Your task to perform on an android device: Go to Google Image 0: 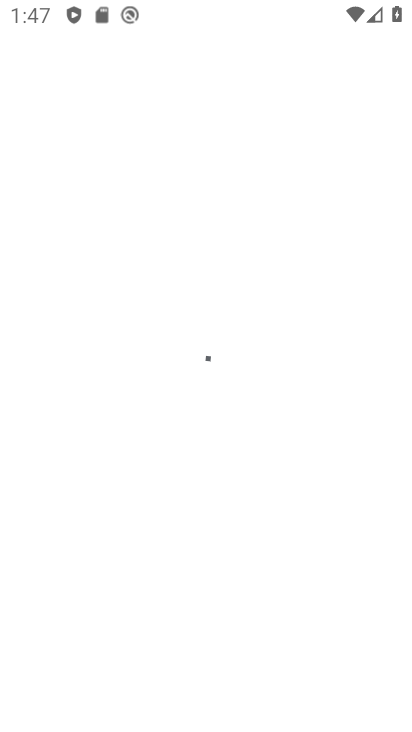
Step 0: press home button
Your task to perform on an android device: Go to Google Image 1: 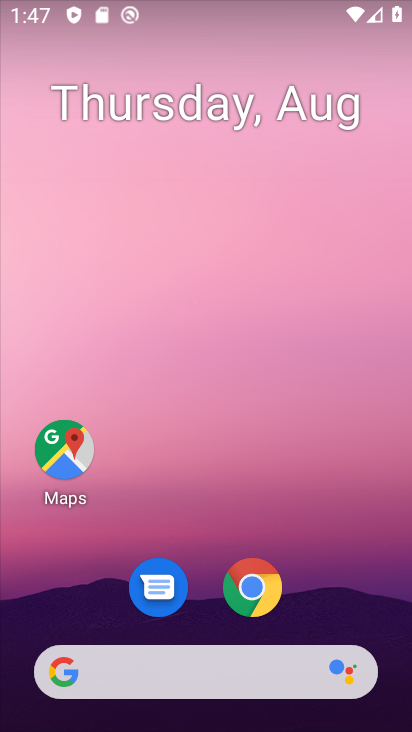
Step 1: click (63, 670)
Your task to perform on an android device: Go to Google Image 2: 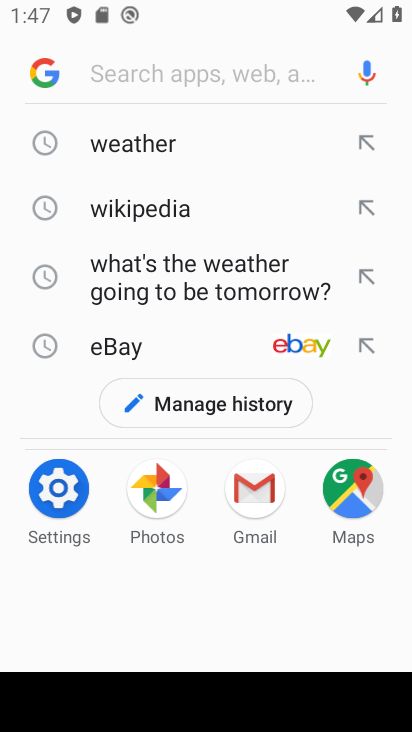
Step 2: click (44, 82)
Your task to perform on an android device: Go to Google Image 3: 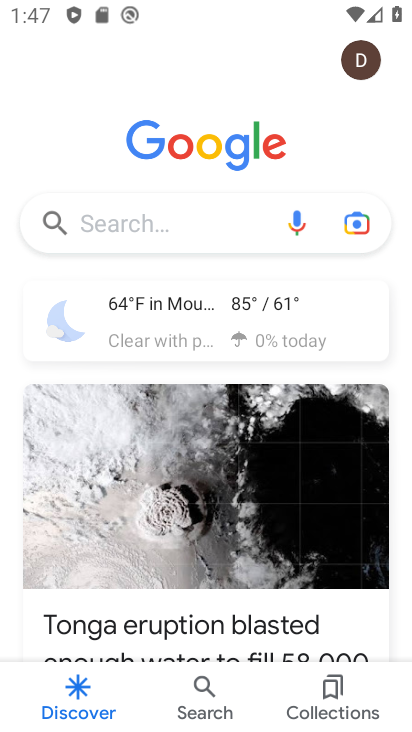
Step 3: task complete